Your task to perform on an android device: Go to Wikipedia Image 0: 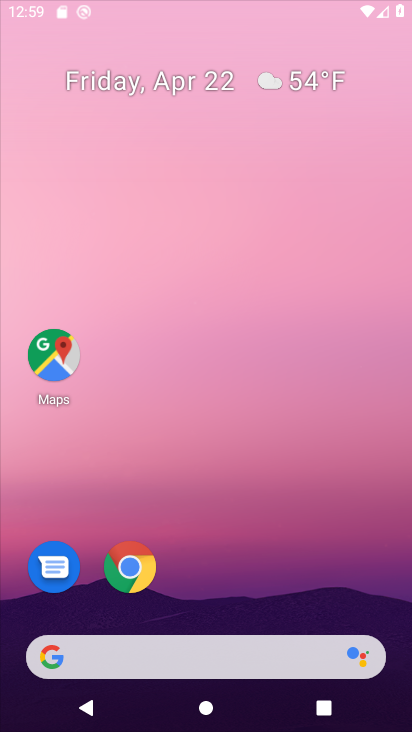
Step 0: drag from (278, 483) to (321, 217)
Your task to perform on an android device: Go to Wikipedia Image 1: 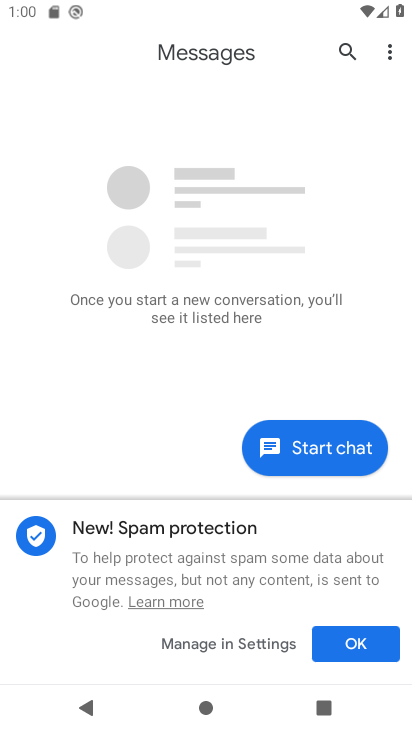
Step 1: press home button
Your task to perform on an android device: Go to Wikipedia Image 2: 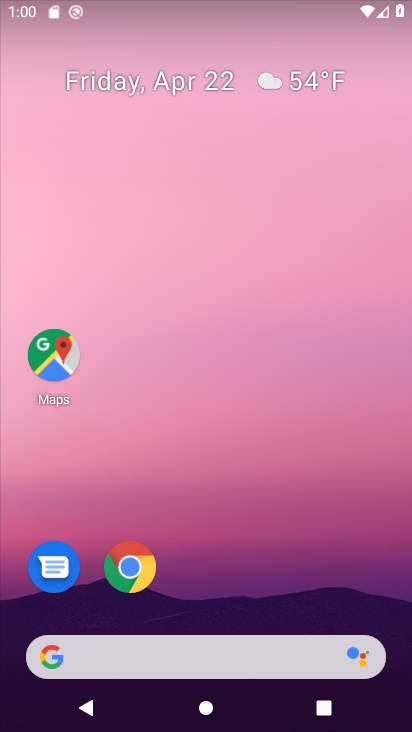
Step 2: drag from (256, 592) to (253, 101)
Your task to perform on an android device: Go to Wikipedia Image 3: 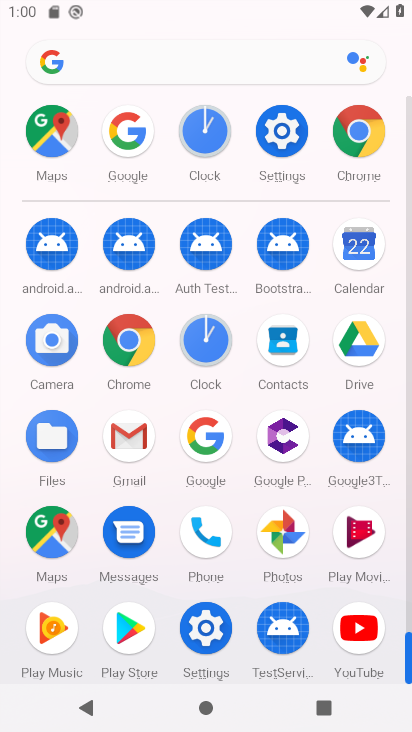
Step 3: click (366, 177)
Your task to perform on an android device: Go to Wikipedia Image 4: 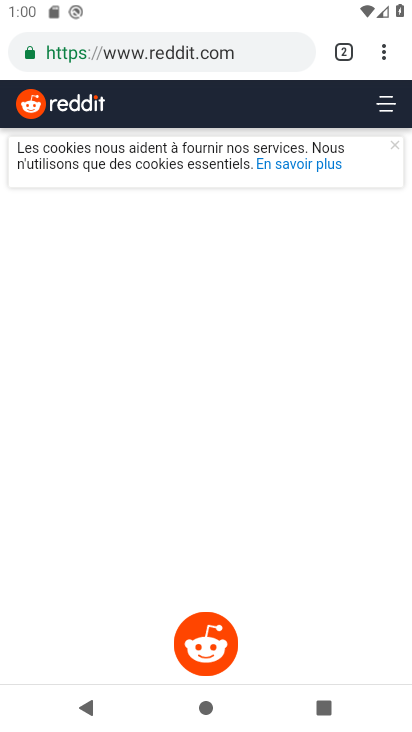
Step 4: click (260, 32)
Your task to perform on an android device: Go to Wikipedia Image 5: 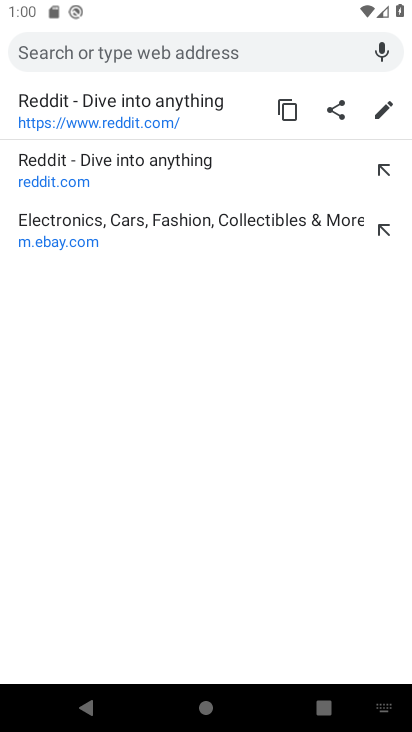
Step 5: type "wikipedia"
Your task to perform on an android device: Go to Wikipedia Image 6: 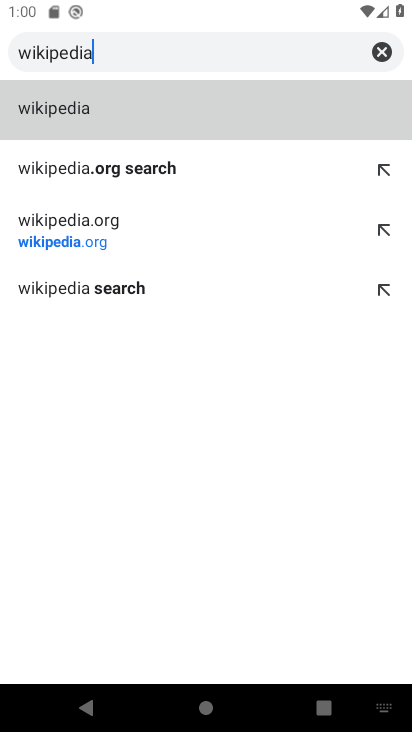
Step 6: click (164, 223)
Your task to perform on an android device: Go to Wikipedia Image 7: 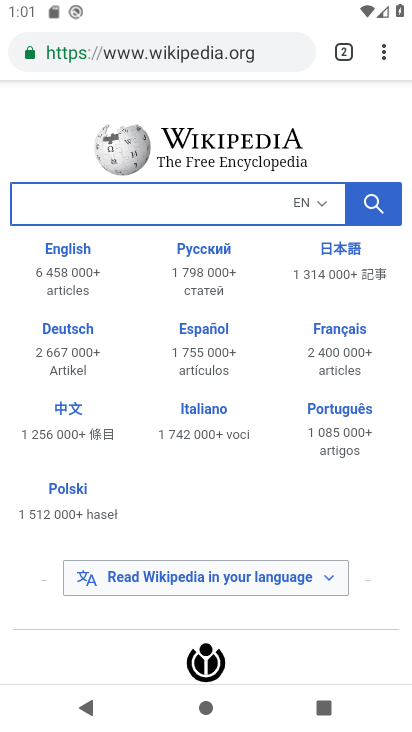
Step 7: task complete